Your task to perform on an android device: Open Google Image 0: 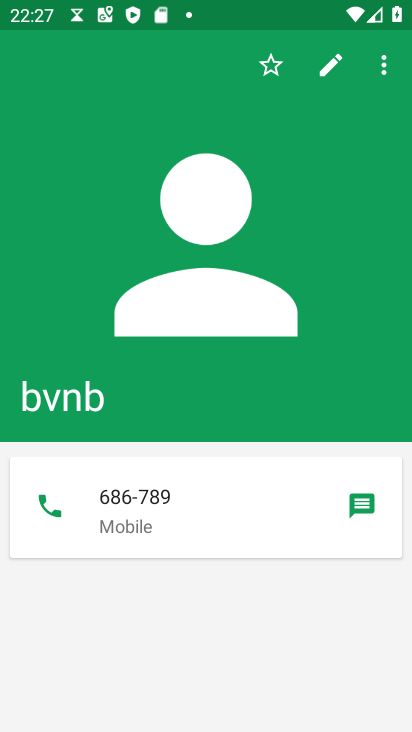
Step 0: press home button
Your task to perform on an android device: Open Google Image 1: 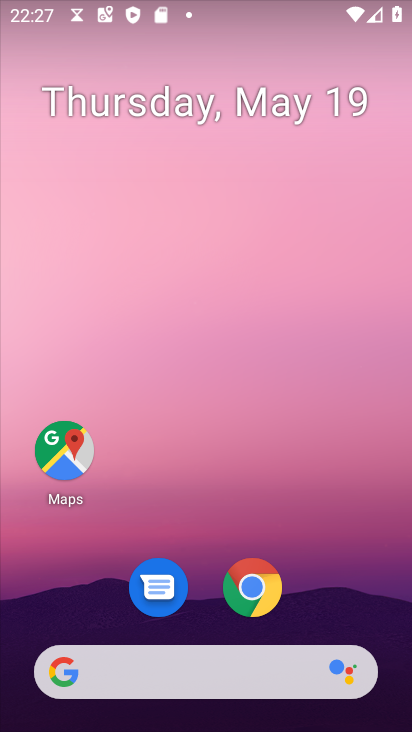
Step 1: drag from (204, 650) to (168, 11)
Your task to perform on an android device: Open Google Image 2: 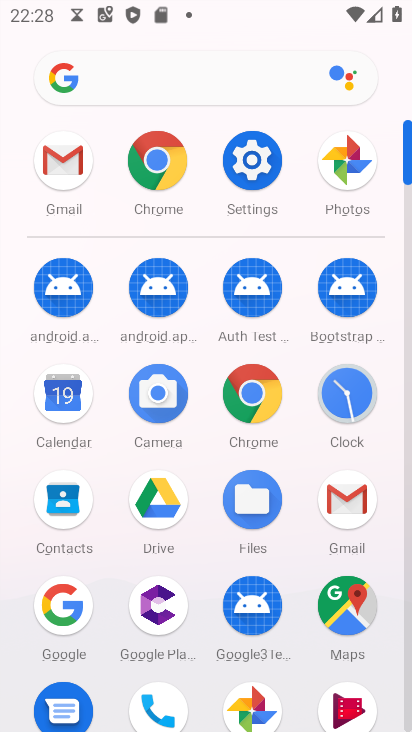
Step 2: click (59, 623)
Your task to perform on an android device: Open Google Image 3: 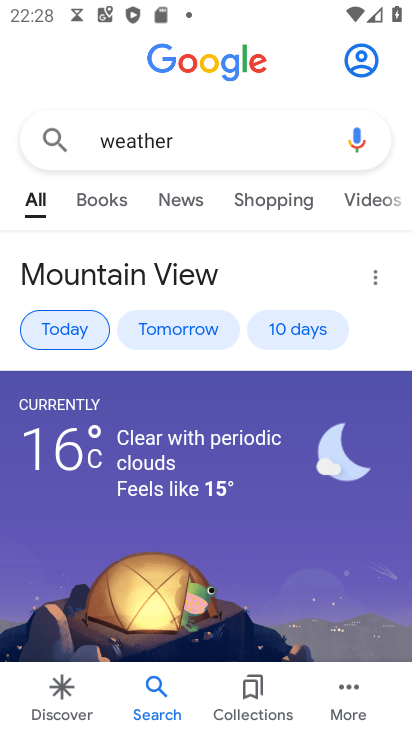
Step 3: task complete